Your task to perform on an android device: toggle airplane mode Image 0: 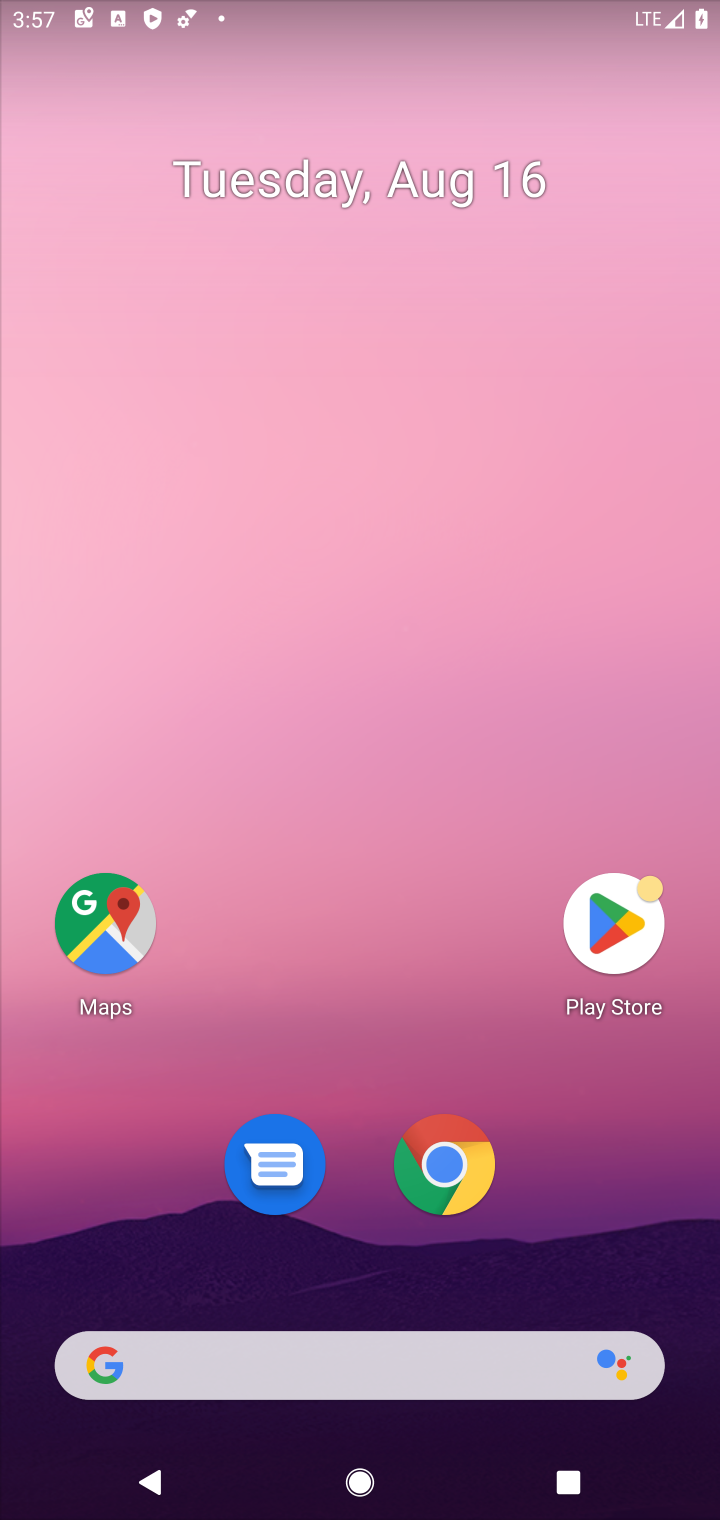
Step 0: press home button
Your task to perform on an android device: toggle airplane mode Image 1: 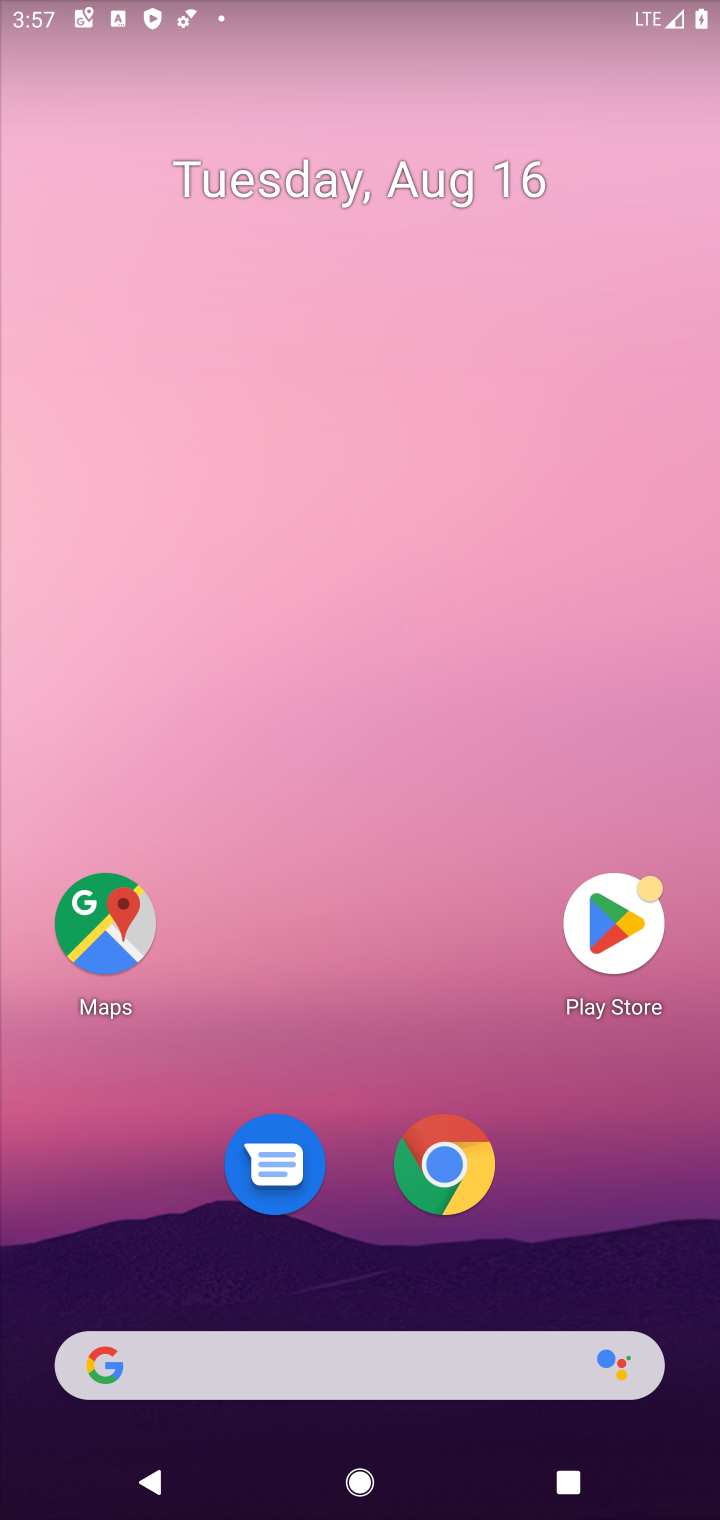
Step 1: drag from (226, 1018) to (506, 268)
Your task to perform on an android device: toggle airplane mode Image 2: 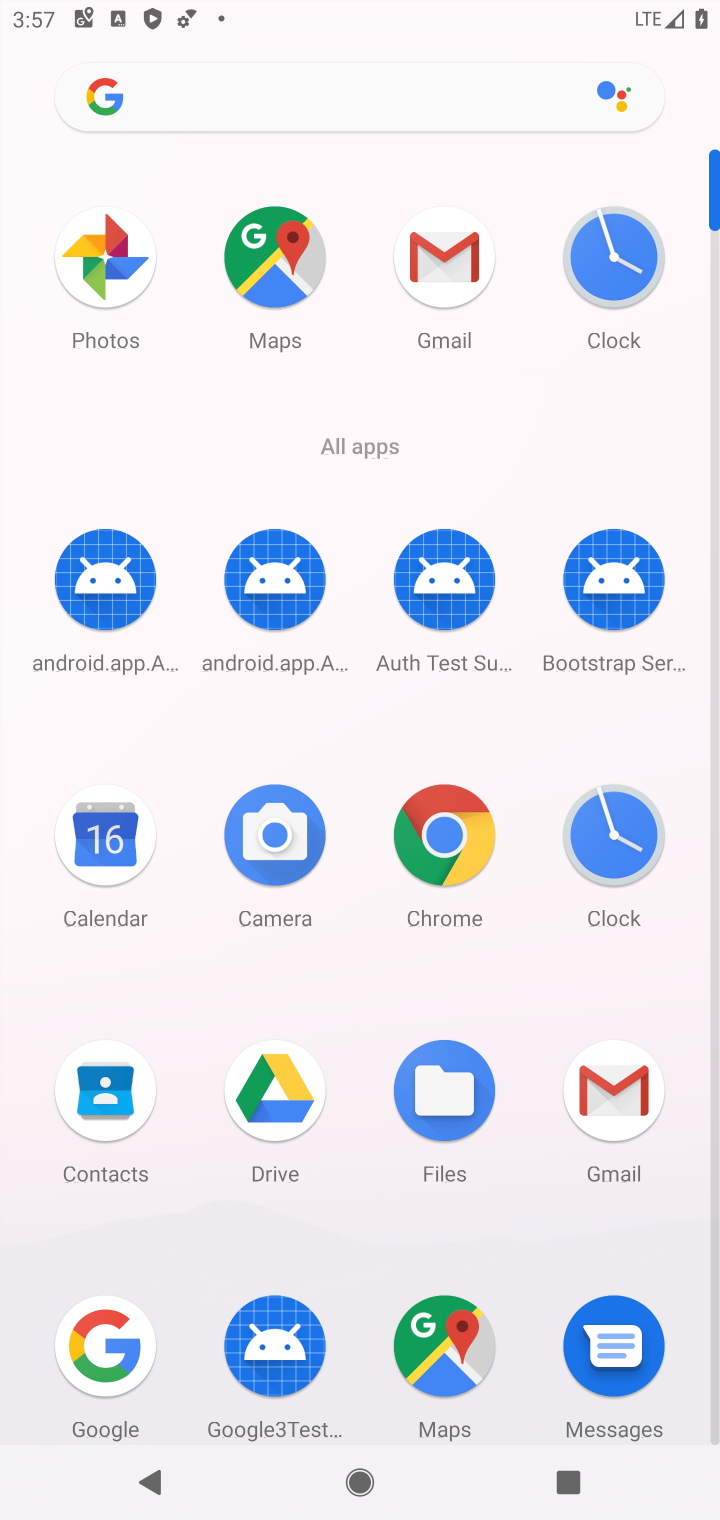
Step 2: drag from (61, 1181) to (326, 416)
Your task to perform on an android device: toggle airplane mode Image 3: 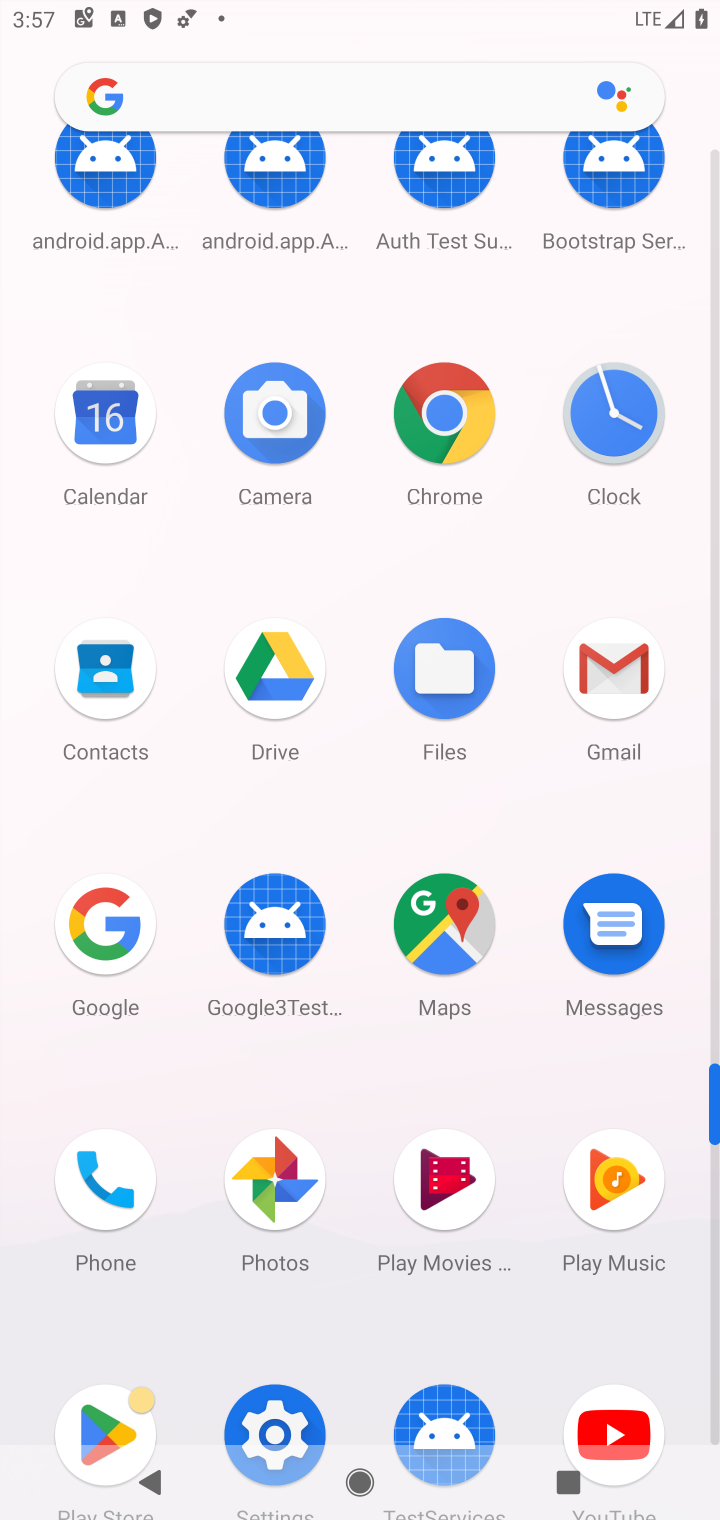
Step 3: click (252, 1426)
Your task to perform on an android device: toggle airplane mode Image 4: 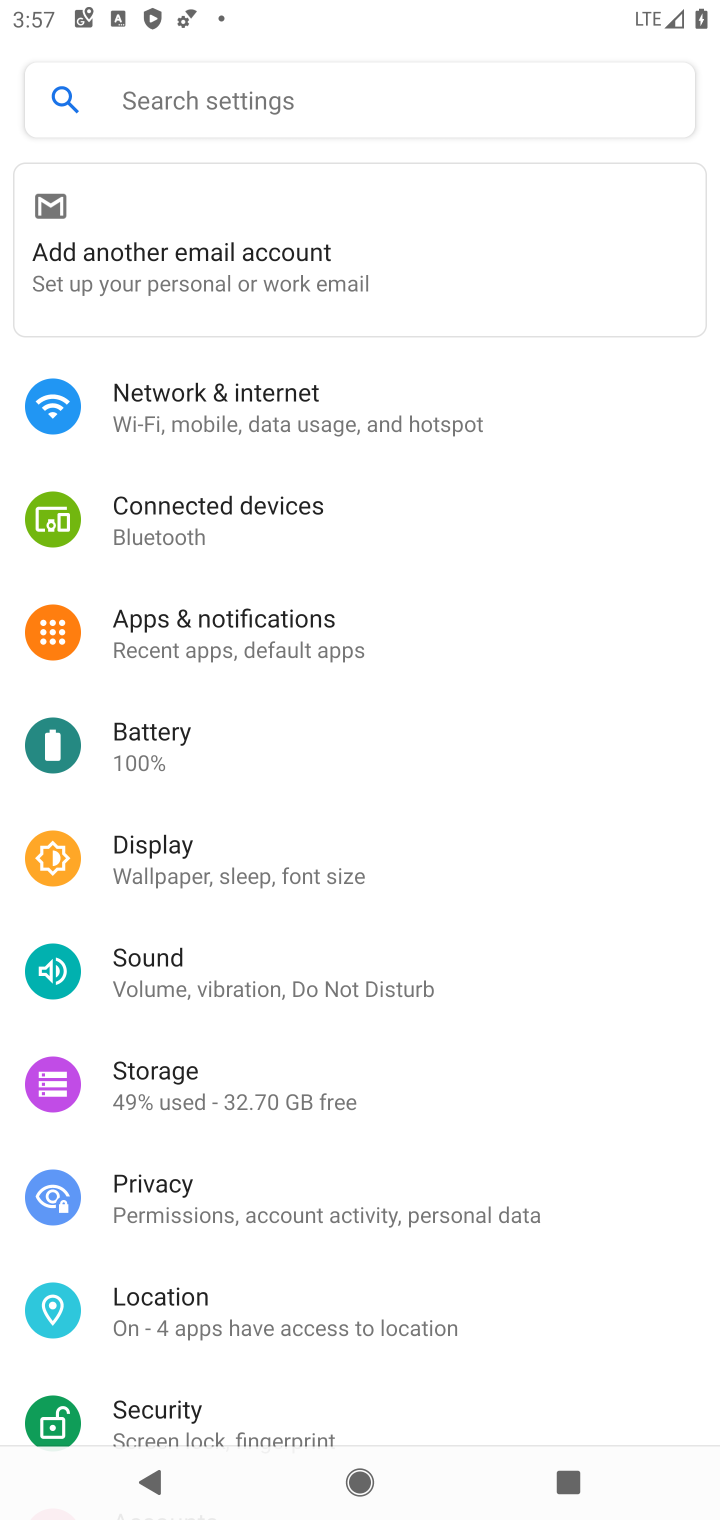
Step 4: click (187, 390)
Your task to perform on an android device: toggle airplane mode Image 5: 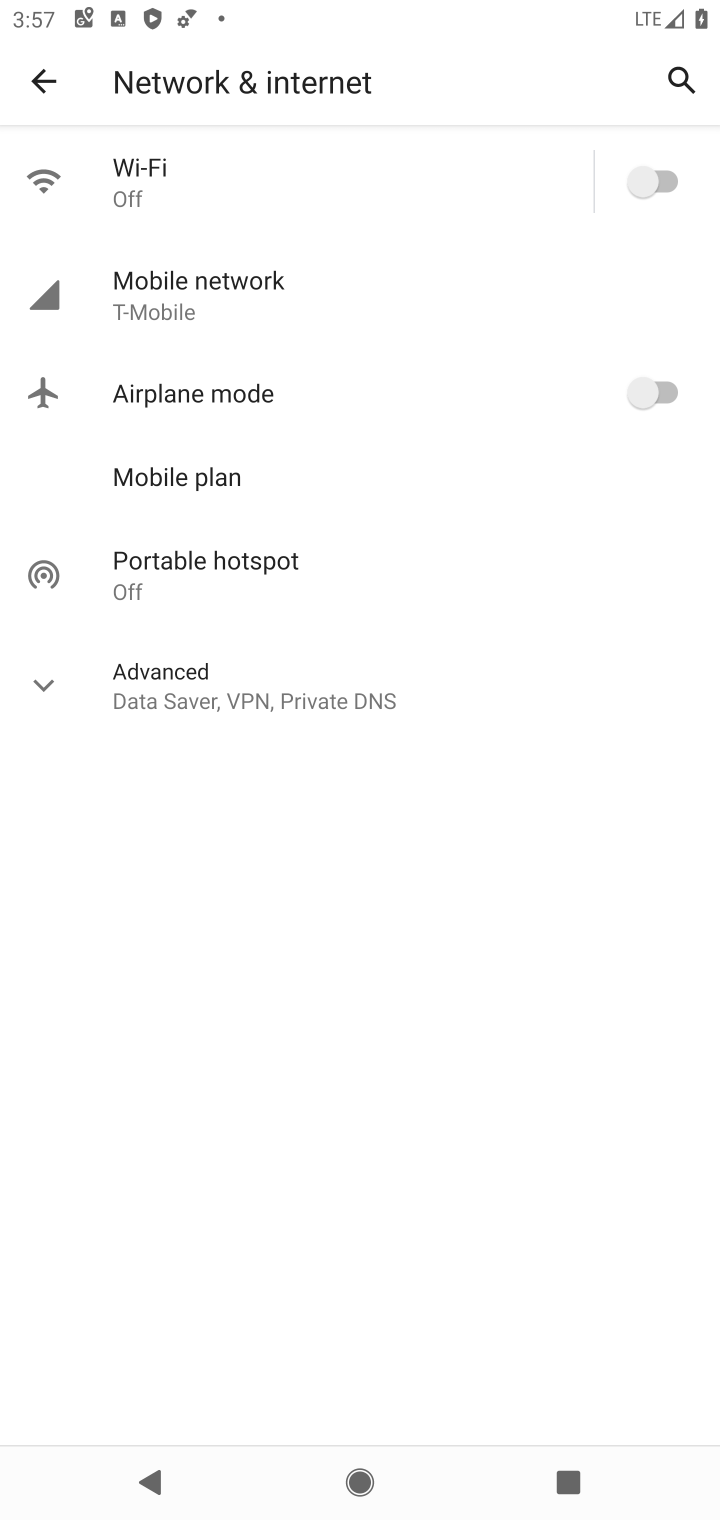
Step 5: click (654, 400)
Your task to perform on an android device: toggle airplane mode Image 6: 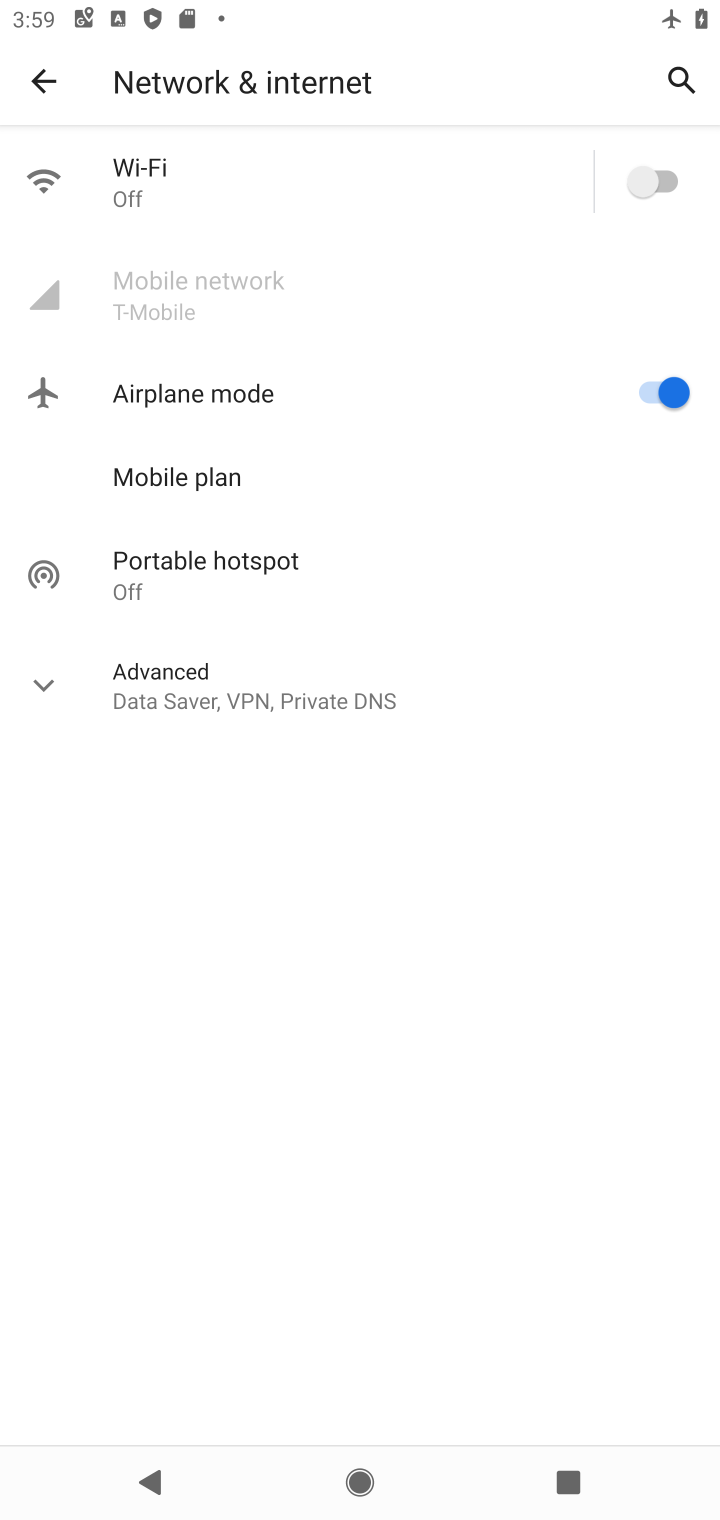
Step 6: click (669, 394)
Your task to perform on an android device: toggle airplane mode Image 7: 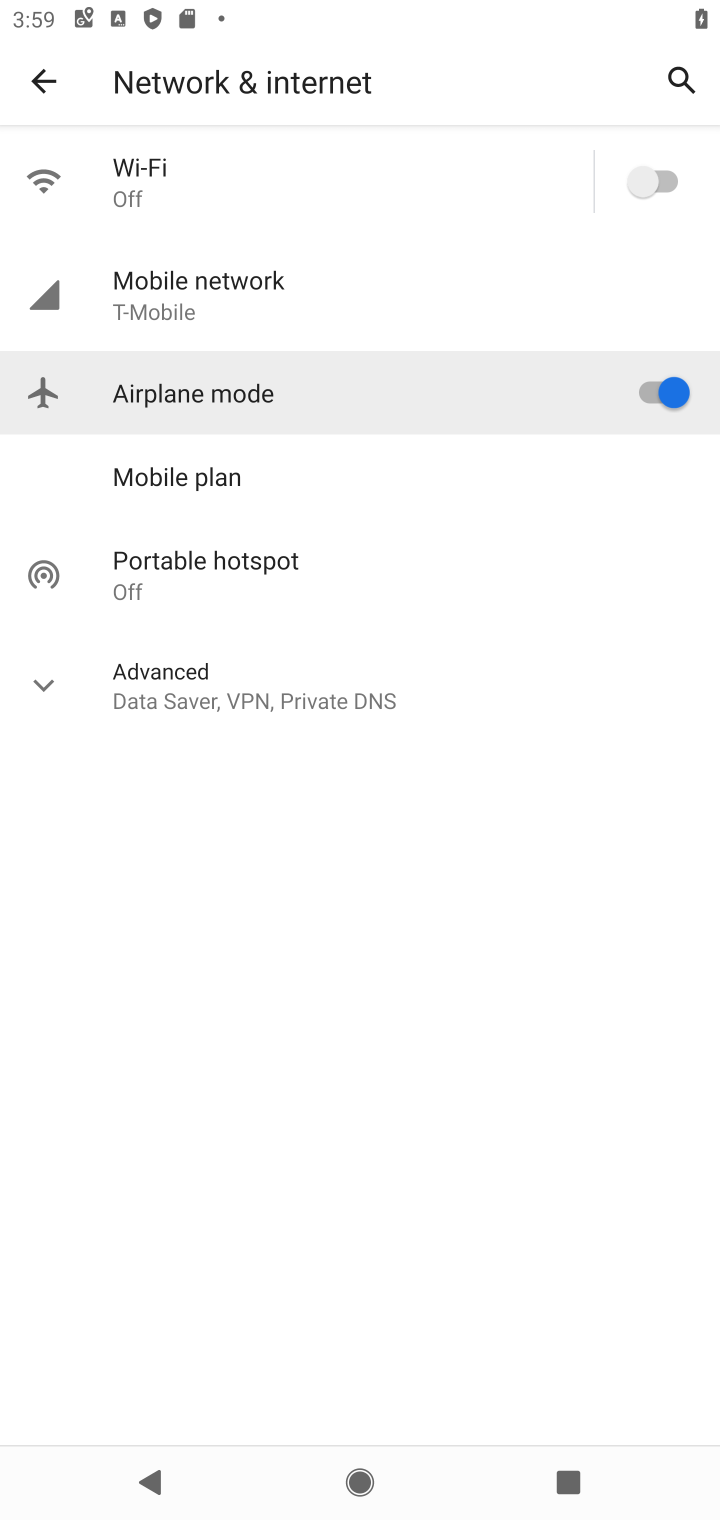
Step 7: task complete